Your task to perform on an android device: Do I have any events tomorrow? Image 0: 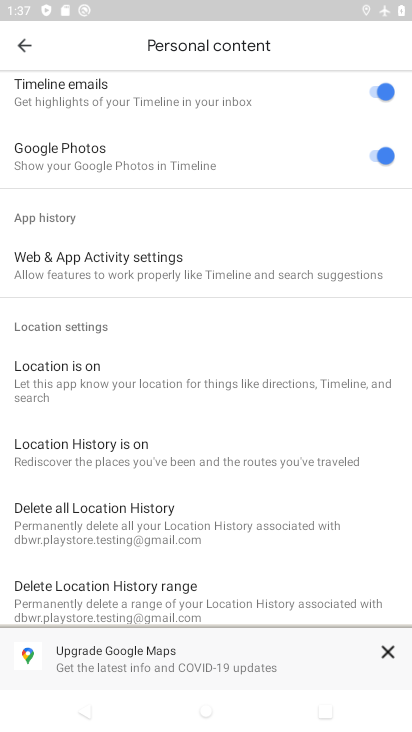
Step 0: press home button
Your task to perform on an android device: Do I have any events tomorrow? Image 1: 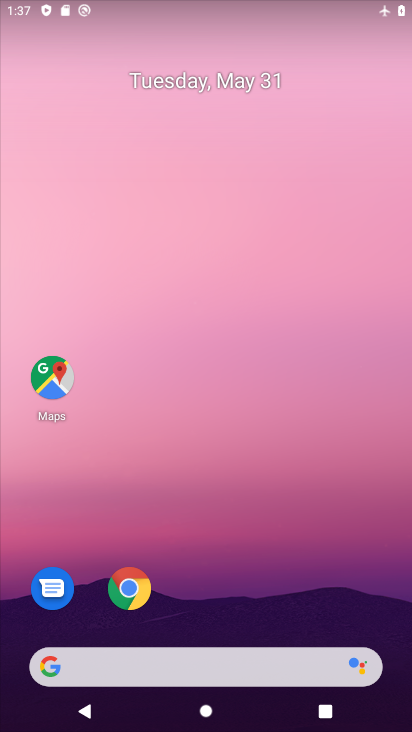
Step 1: drag from (242, 621) to (181, 107)
Your task to perform on an android device: Do I have any events tomorrow? Image 2: 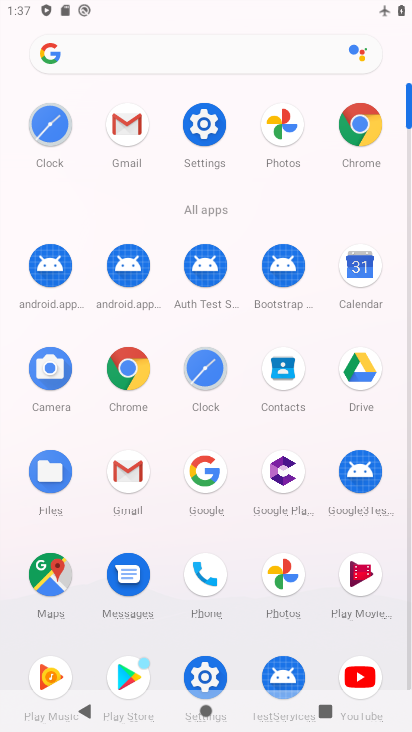
Step 2: click (364, 267)
Your task to perform on an android device: Do I have any events tomorrow? Image 3: 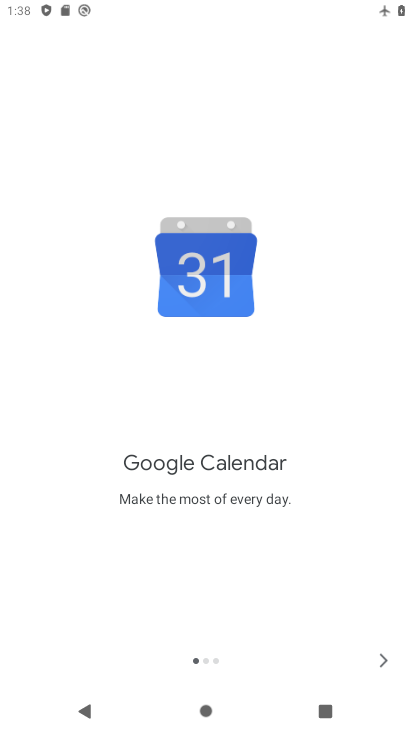
Step 3: click (379, 656)
Your task to perform on an android device: Do I have any events tomorrow? Image 4: 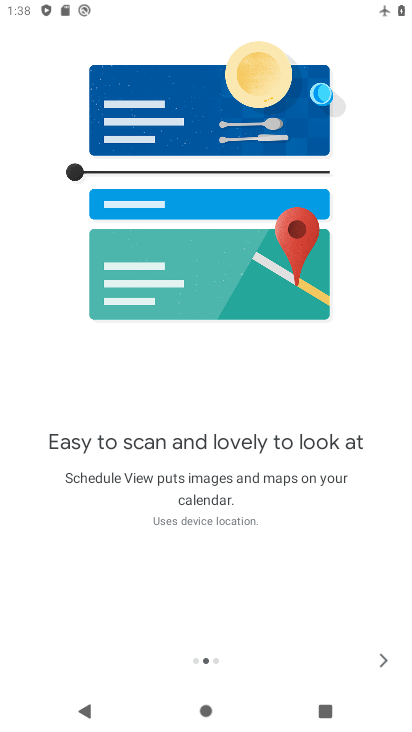
Step 4: click (379, 656)
Your task to perform on an android device: Do I have any events tomorrow? Image 5: 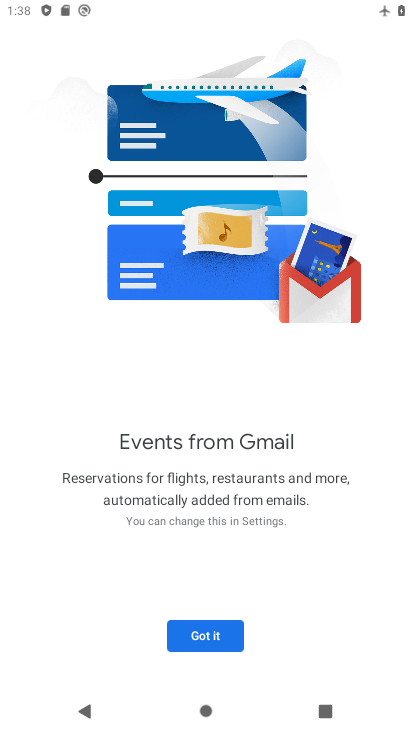
Step 5: click (211, 636)
Your task to perform on an android device: Do I have any events tomorrow? Image 6: 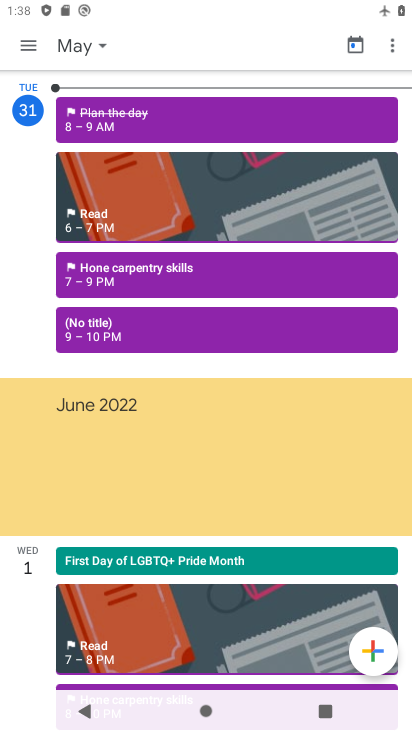
Step 6: click (40, 45)
Your task to perform on an android device: Do I have any events tomorrow? Image 7: 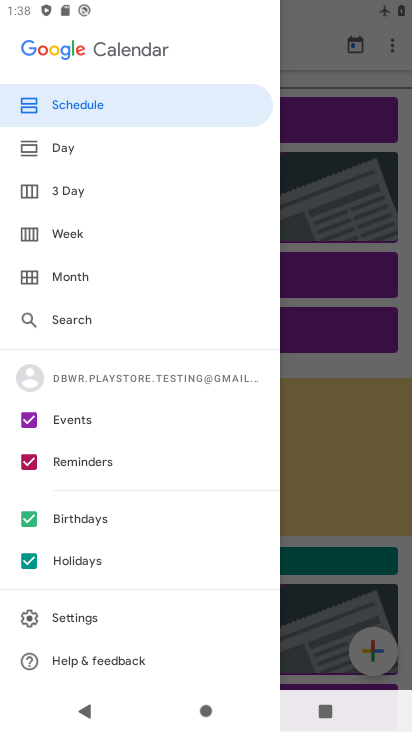
Step 7: click (26, 564)
Your task to perform on an android device: Do I have any events tomorrow? Image 8: 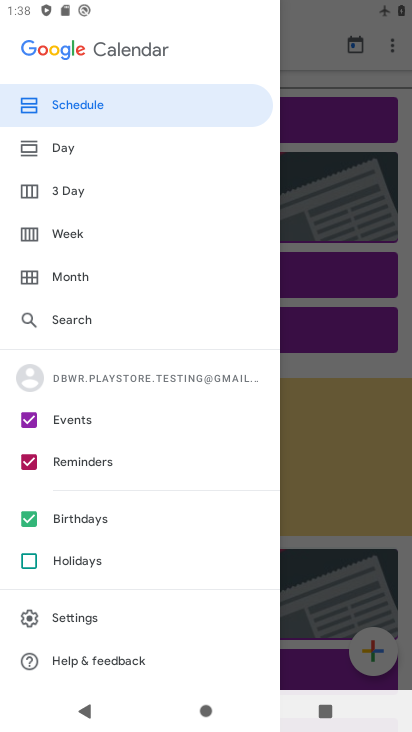
Step 8: click (27, 517)
Your task to perform on an android device: Do I have any events tomorrow? Image 9: 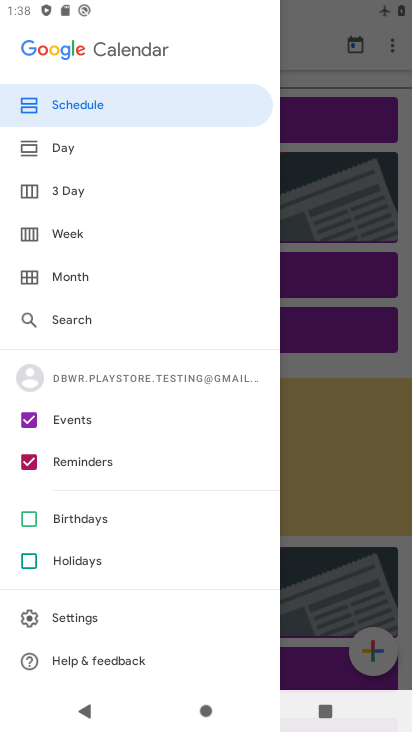
Step 9: click (28, 463)
Your task to perform on an android device: Do I have any events tomorrow? Image 10: 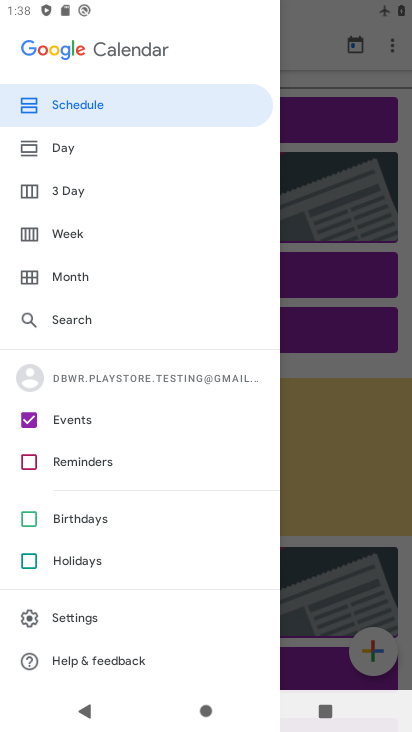
Step 10: click (69, 137)
Your task to perform on an android device: Do I have any events tomorrow? Image 11: 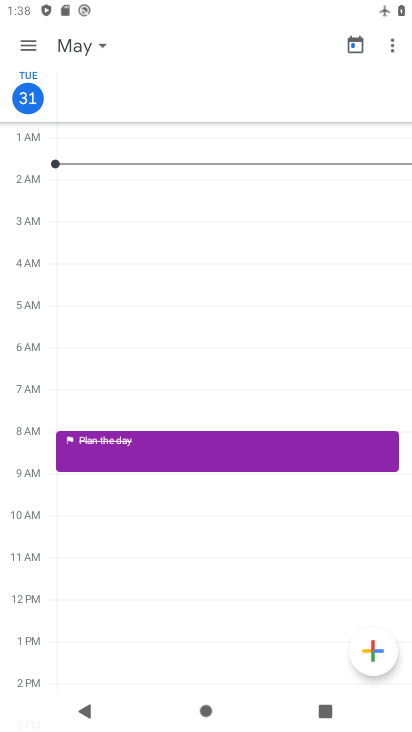
Step 11: click (84, 53)
Your task to perform on an android device: Do I have any events tomorrow? Image 12: 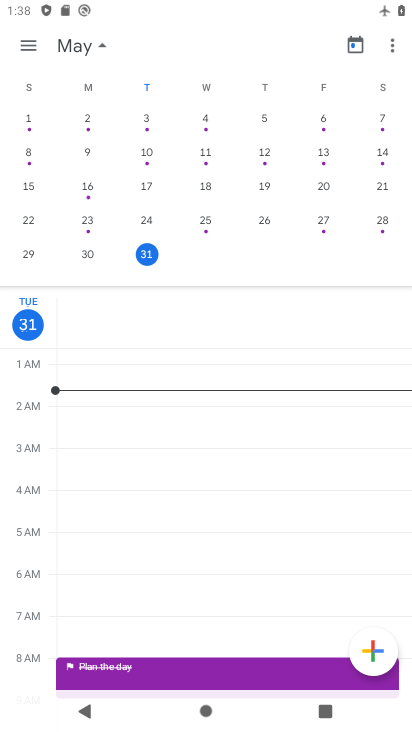
Step 12: drag from (352, 185) to (4, 235)
Your task to perform on an android device: Do I have any events tomorrow? Image 13: 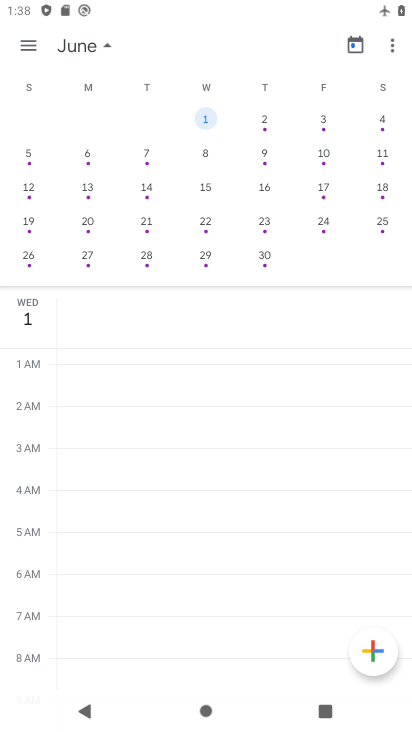
Step 13: click (211, 118)
Your task to perform on an android device: Do I have any events tomorrow? Image 14: 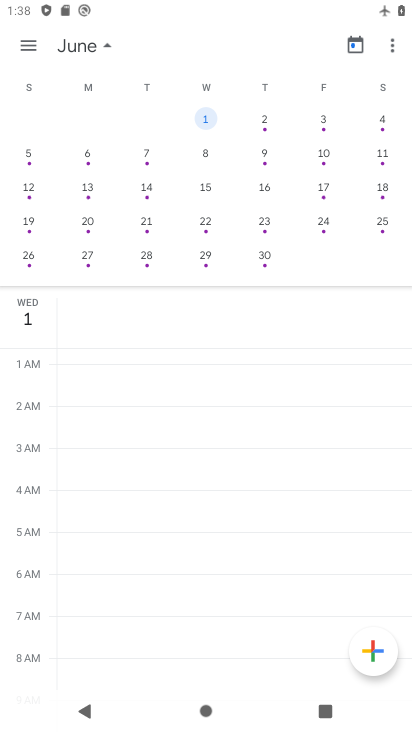
Step 14: click (93, 45)
Your task to perform on an android device: Do I have any events tomorrow? Image 15: 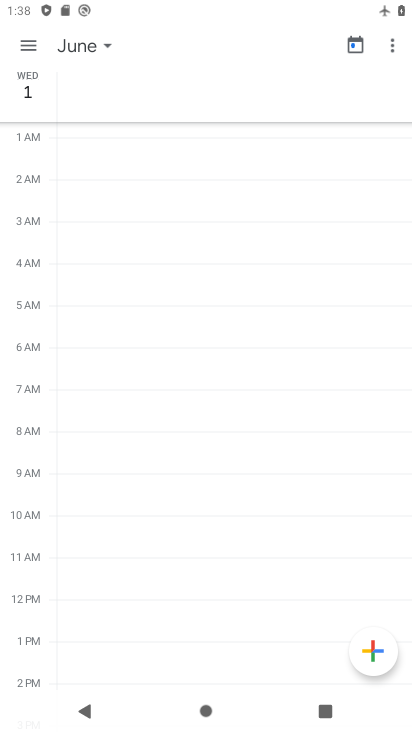
Step 15: task complete